Your task to perform on an android device: clear history in the chrome app Image 0: 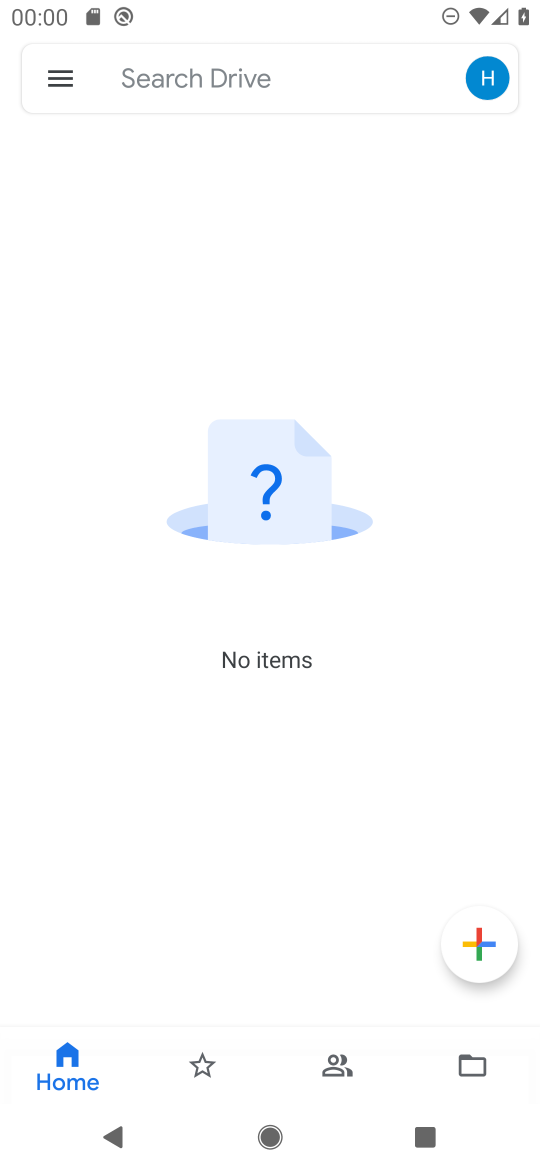
Step 0: press home button
Your task to perform on an android device: clear history in the chrome app Image 1: 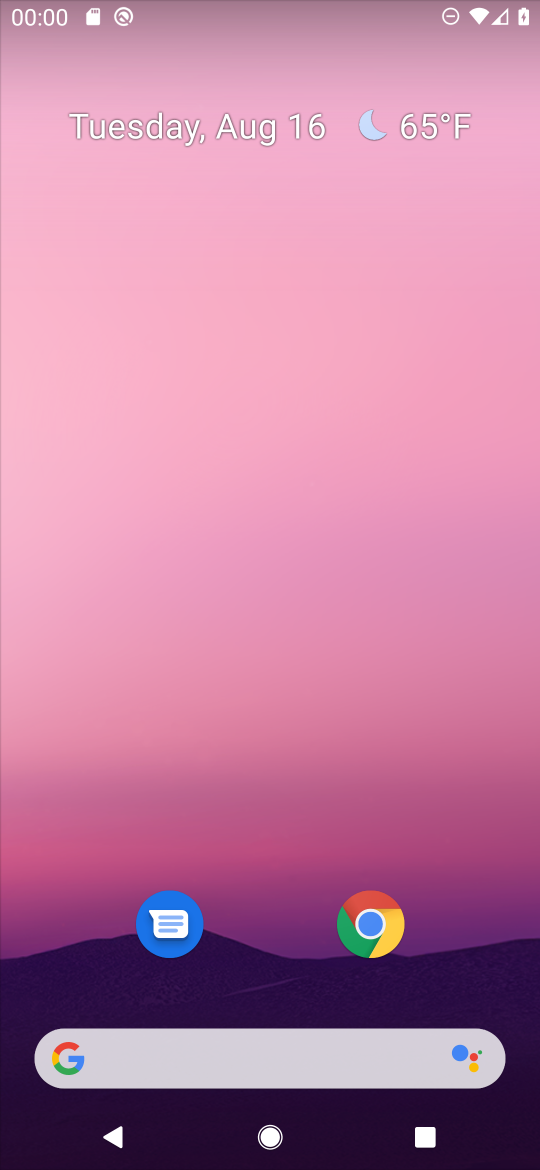
Step 1: click (379, 921)
Your task to perform on an android device: clear history in the chrome app Image 2: 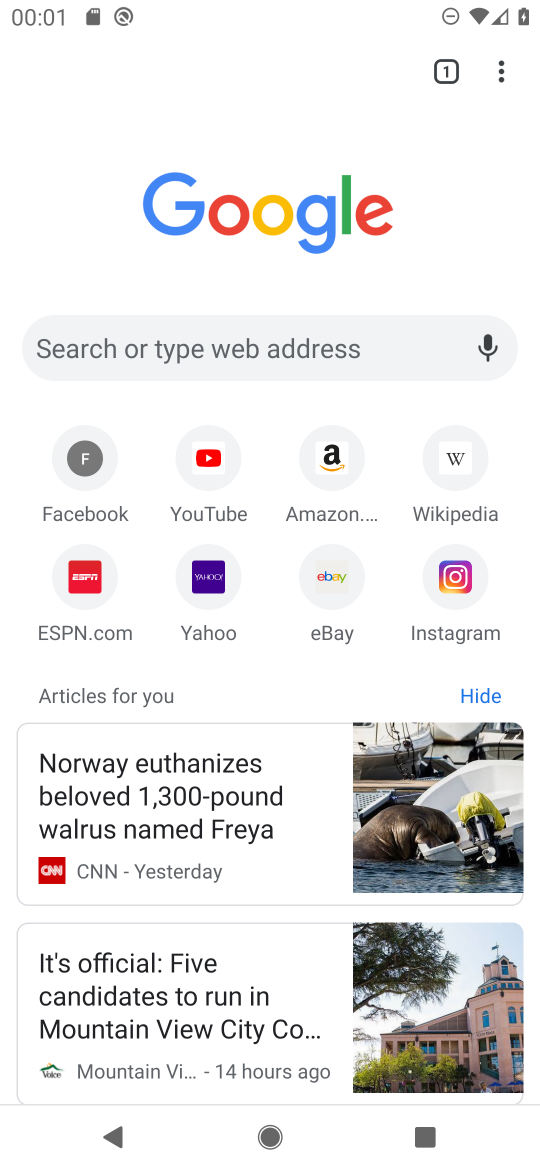
Step 2: click (503, 67)
Your task to perform on an android device: clear history in the chrome app Image 3: 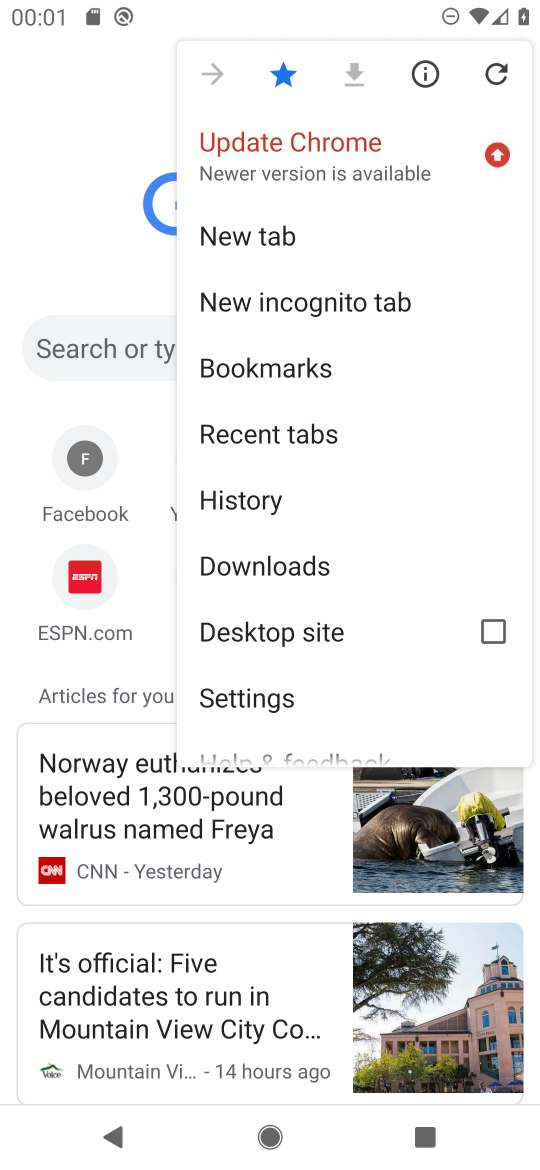
Step 3: click (269, 499)
Your task to perform on an android device: clear history in the chrome app Image 4: 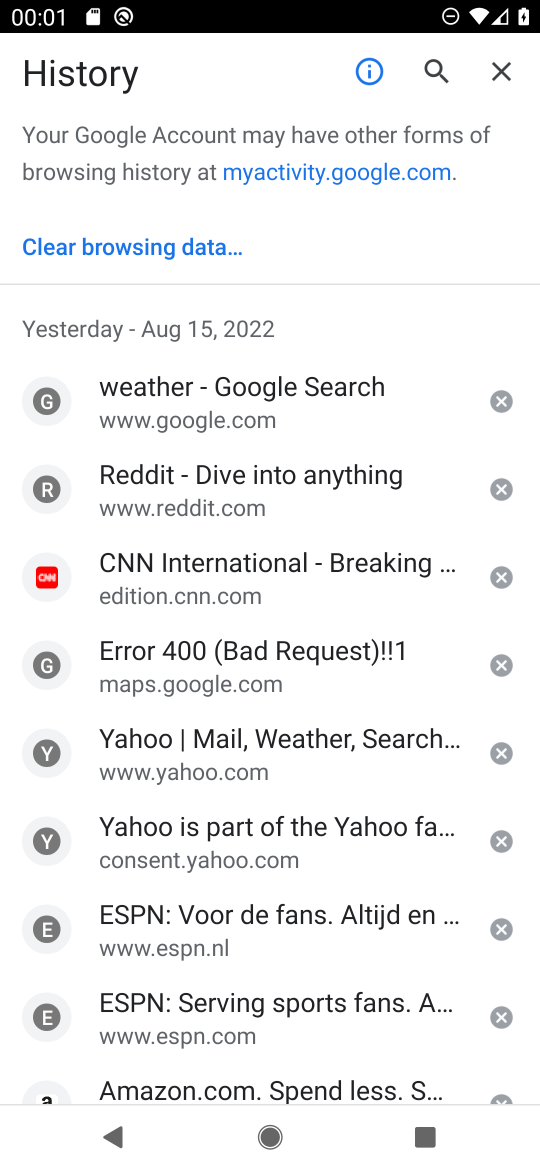
Step 4: click (157, 252)
Your task to perform on an android device: clear history in the chrome app Image 5: 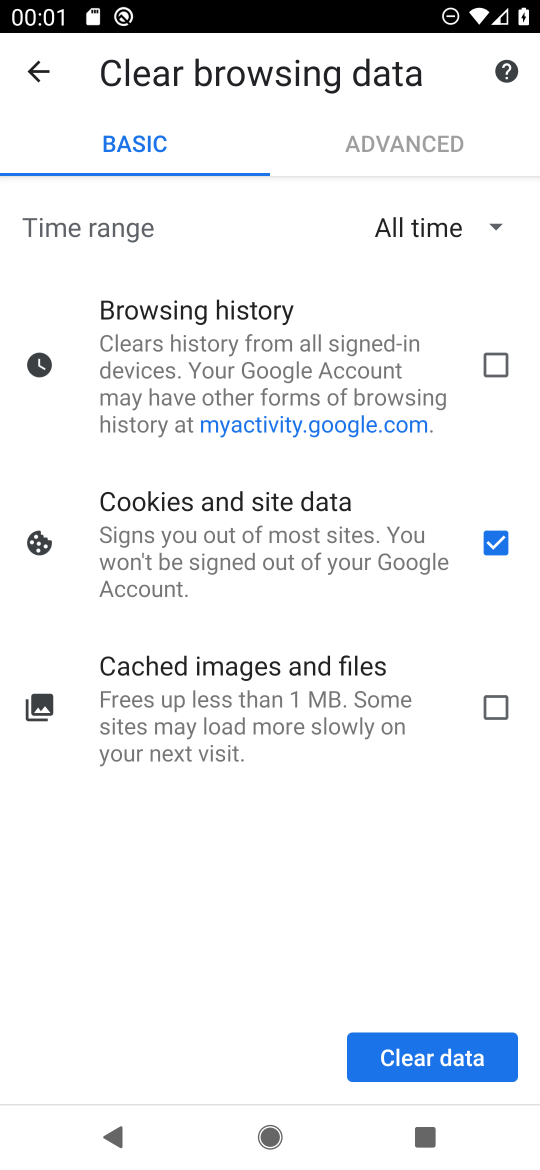
Step 5: click (503, 367)
Your task to perform on an android device: clear history in the chrome app Image 6: 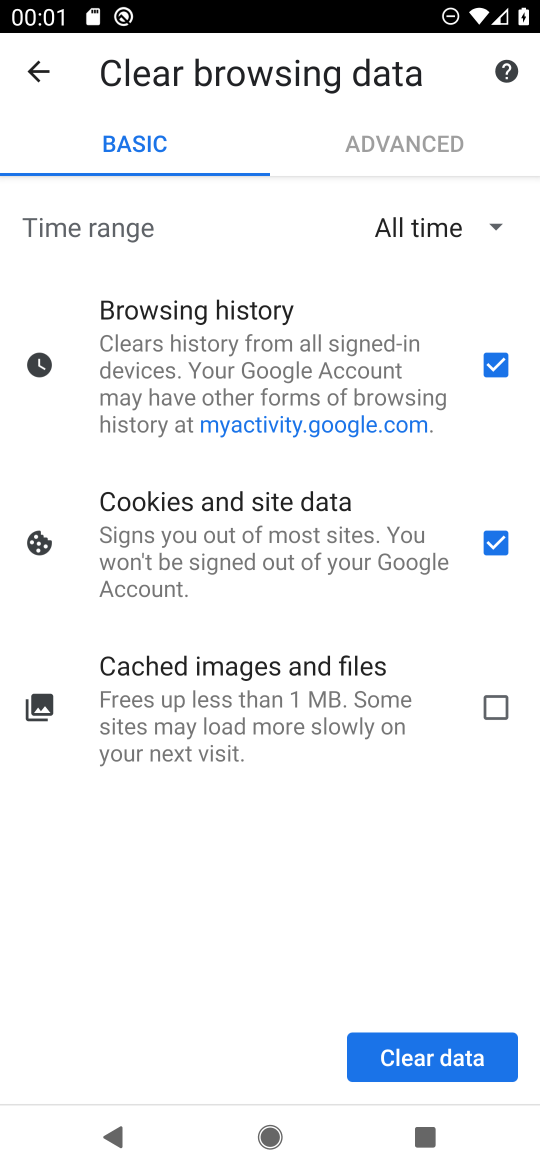
Step 6: click (429, 1052)
Your task to perform on an android device: clear history in the chrome app Image 7: 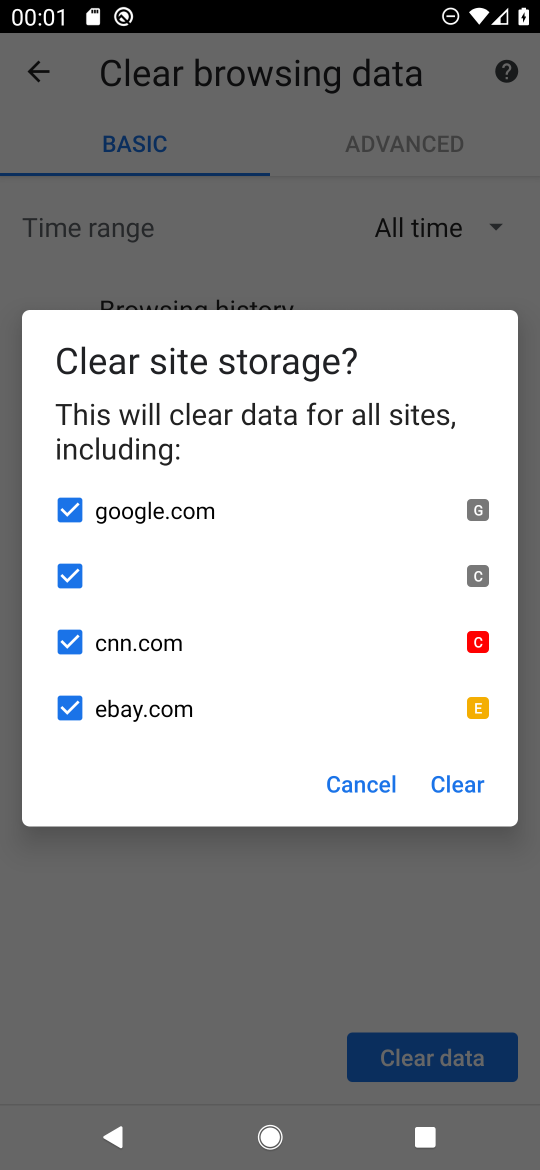
Step 7: click (471, 785)
Your task to perform on an android device: clear history in the chrome app Image 8: 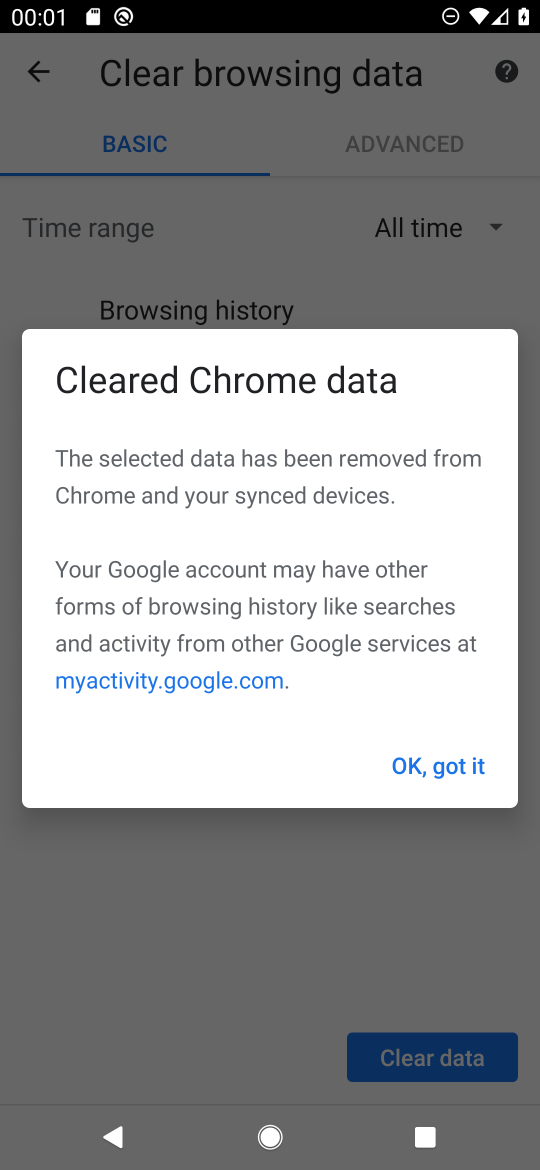
Step 8: click (434, 760)
Your task to perform on an android device: clear history in the chrome app Image 9: 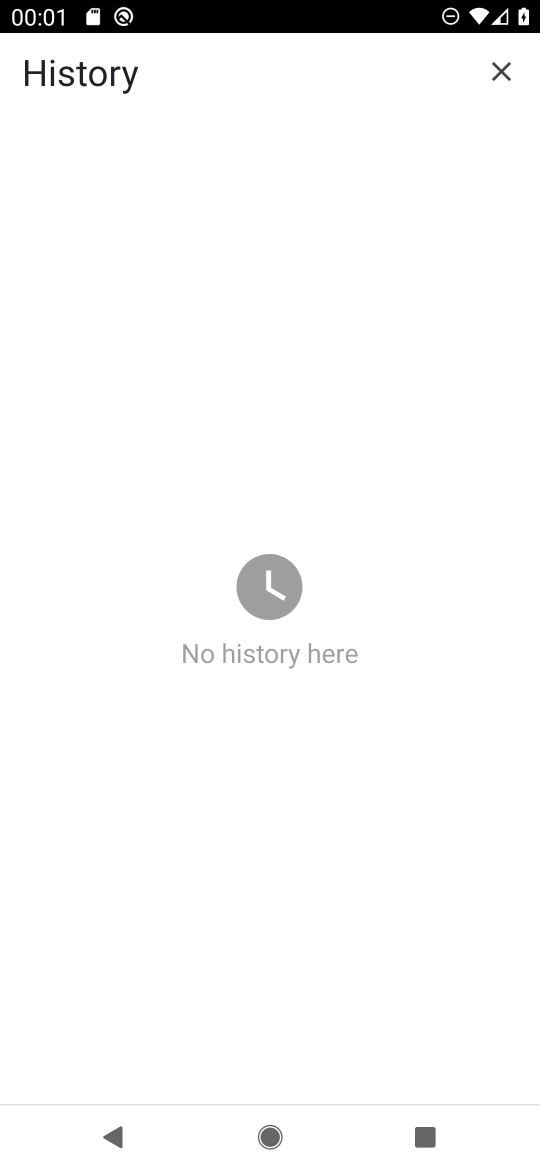
Step 9: task complete